Your task to perform on an android device: star an email in the gmail app Image 0: 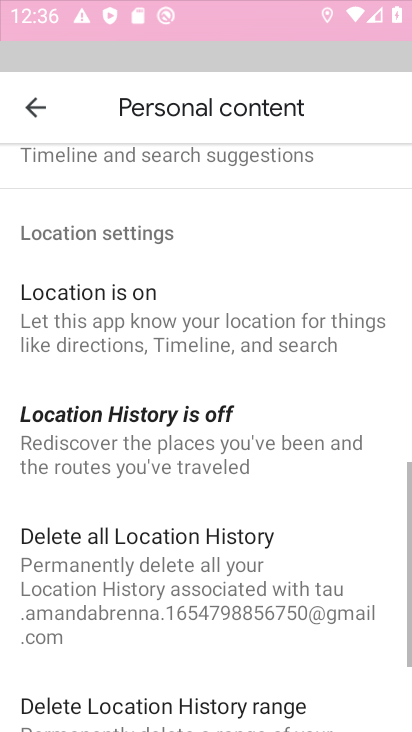
Step 0: click (210, 681)
Your task to perform on an android device: star an email in the gmail app Image 1: 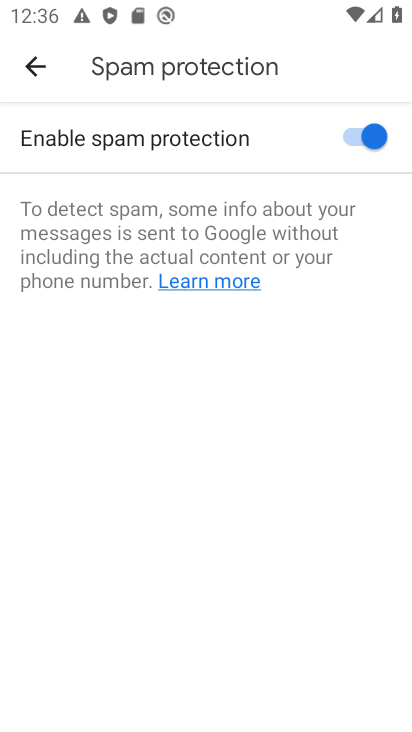
Step 1: press home button
Your task to perform on an android device: star an email in the gmail app Image 2: 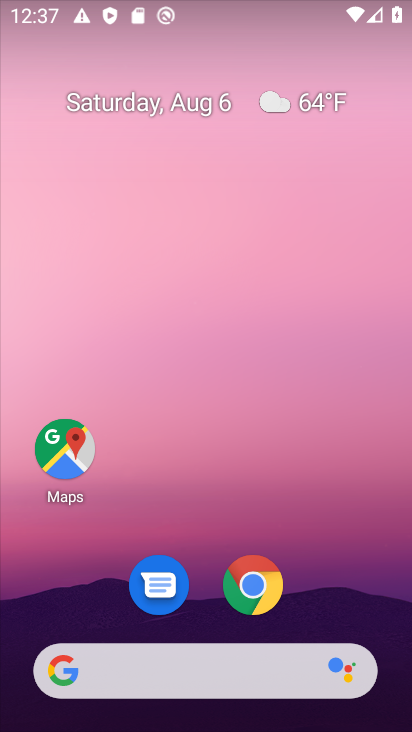
Step 2: drag from (227, 521) to (259, 5)
Your task to perform on an android device: star an email in the gmail app Image 3: 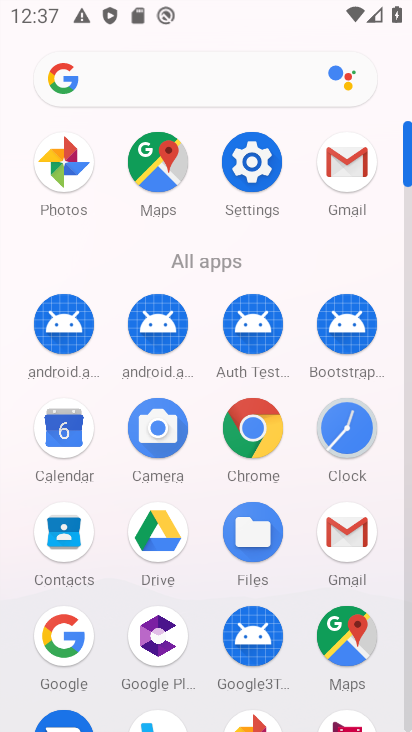
Step 3: click (327, 157)
Your task to perform on an android device: star an email in the gmail app Image 4: 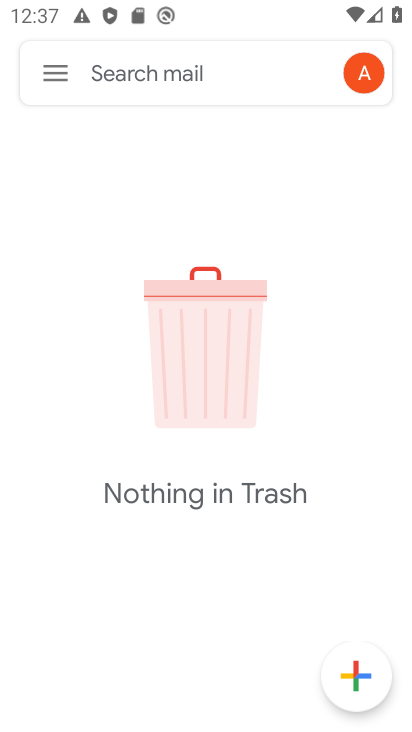
Step 4: click (62, 77)
Your task to perform on an android device: star an email in the gmail app Image 5: 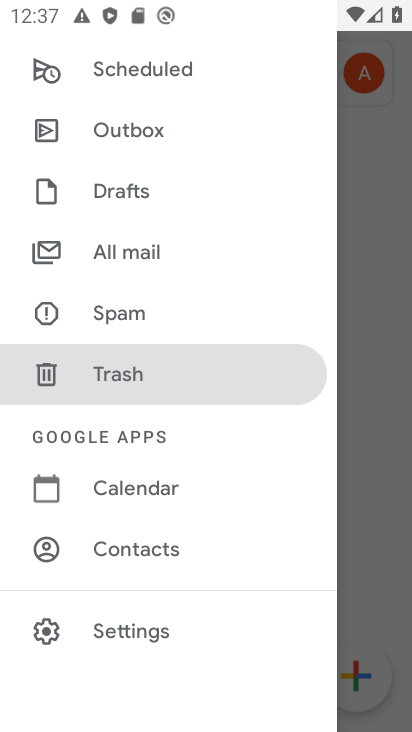
Step 5: click (138, 246)
Your task to perform on an android device: star an email in the gmail app Image 6: 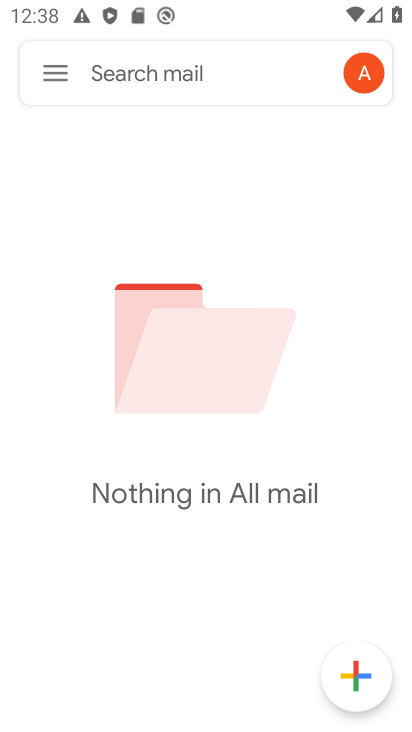
Step 6: task complete